Your task to perform on an android device: open app "LiveIn - Share Your Moment" Image 0: 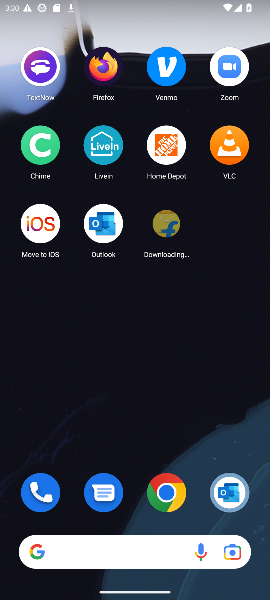
Step 0: drag from (138, 520) to (149, 73)
Your task to perform on an android device: open app "LiveIn - Share Your Moment" Image 1: 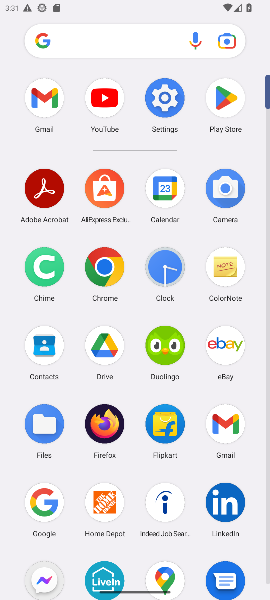
Step 1: click (214, 100)
Your task to perform on an android device: open app "LiveIn - Share Your Moment" Image 2: 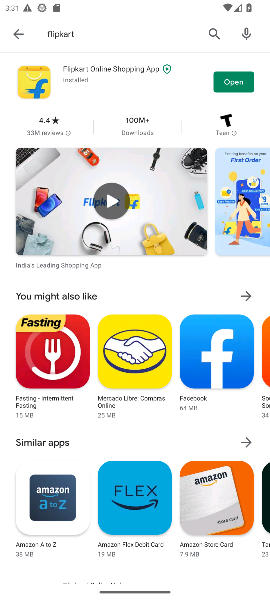
Step 2: click (205, 35)
Your task to perform on an android device: open app "LiveIn - Share Your Moment" Image 3: 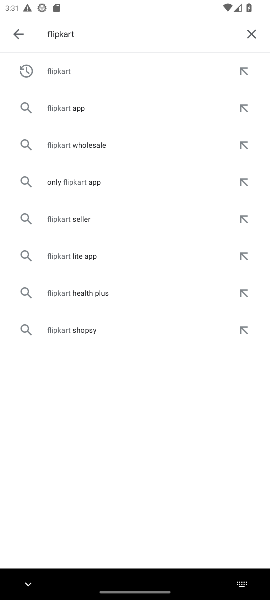
Step 3: click (245, 35)
Your task to perform on an android device: open app "LiveIn - Share Your Moment" Image 4: 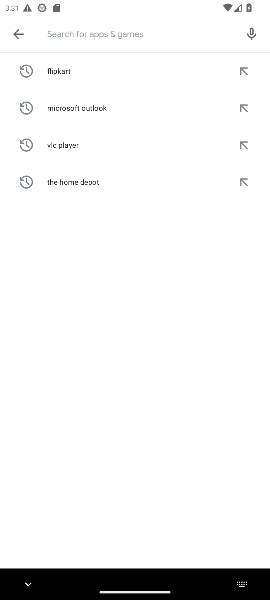
Step 4: type "livein"
Your task to perform on an android device: open app "LiveIn - Share Your Moment" Image 5: 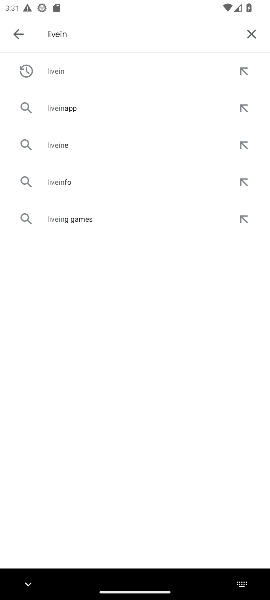
Step 5: click (88, 60)
Your task to perform on an android device: open app "LiveIn - Share Your Moment" Image 6: 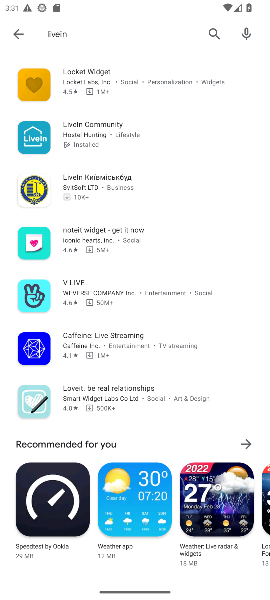
Step 6: click (128, 132)
Your task to perform on an android device: open app "LiveIn - Share Your Moment" Image 7: 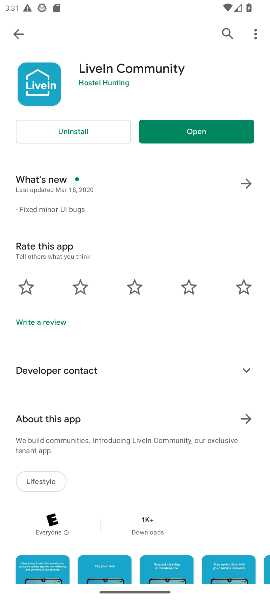
Step 7: click (189, 138)
Your task to perform on an android device: open app "LiveIn - Share Your Moment" Image 8: 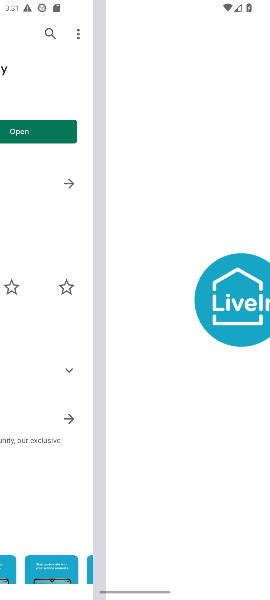
Step 8: task complete